Your task to perform on an android device: turn off location history Image 0: 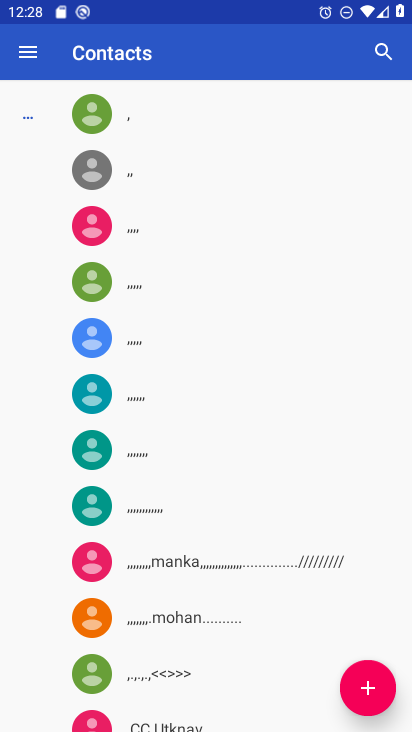
Step 0: press home button
Your task to perform on an android device: turn off location history Image 1: 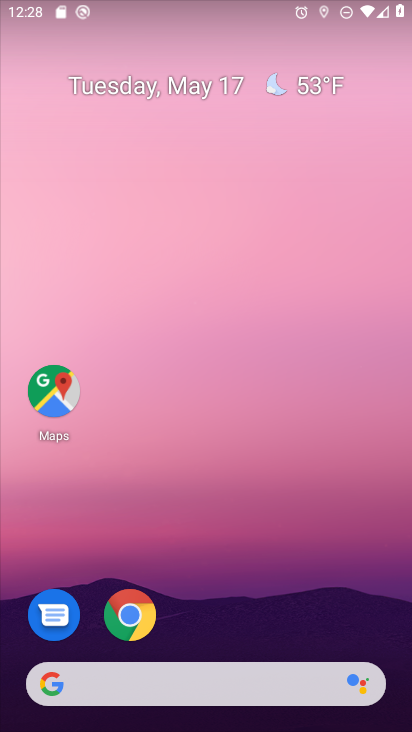
Step 1: drag from (168, 647) to (195, 385)
Your task to perform on an android device: turn off location history Image 2: 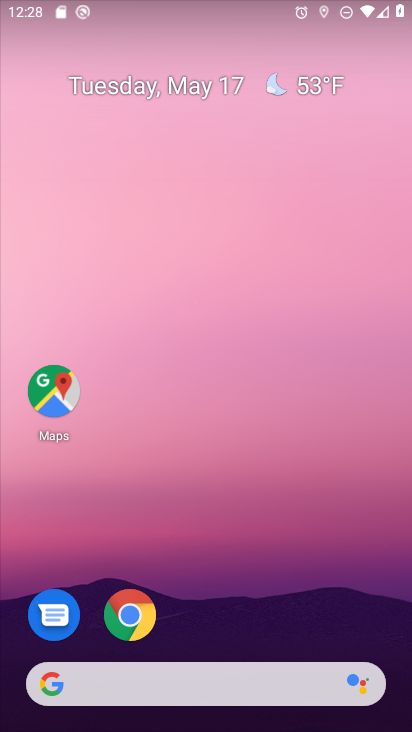
Step 2: drag from (205, 505) to (243, 299)
Your task to perform on an android device: turn off location history Image 3: 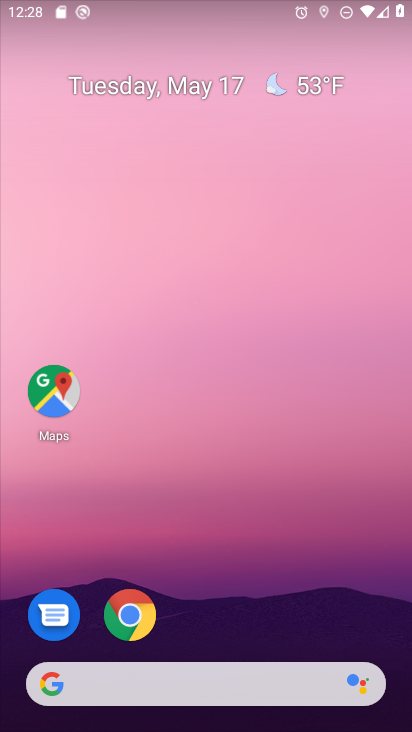
Step 3: drag from (227, 662) to (230, 238)
Your task to perform on an android device: turn off location history Image 4: 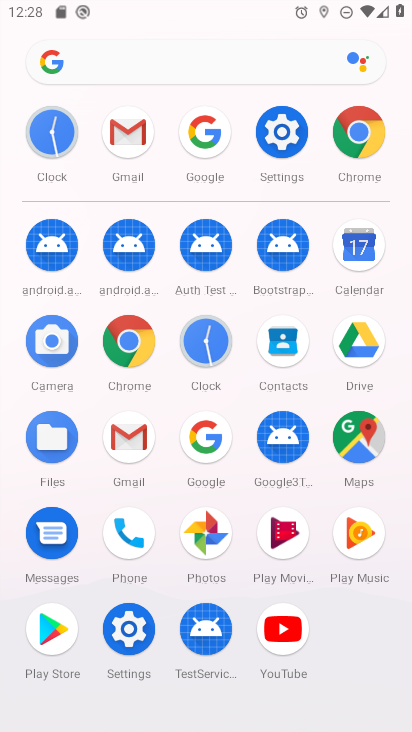
Step 4: click (294, 121)
Your task to perform on an android device: turn off location history Image 5: 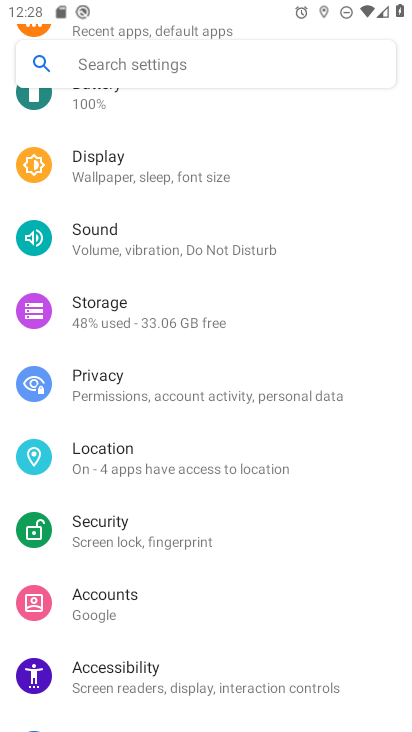
Step 5: click (143, 458)
Your task to perform on an android device: turn off location history Image 6: 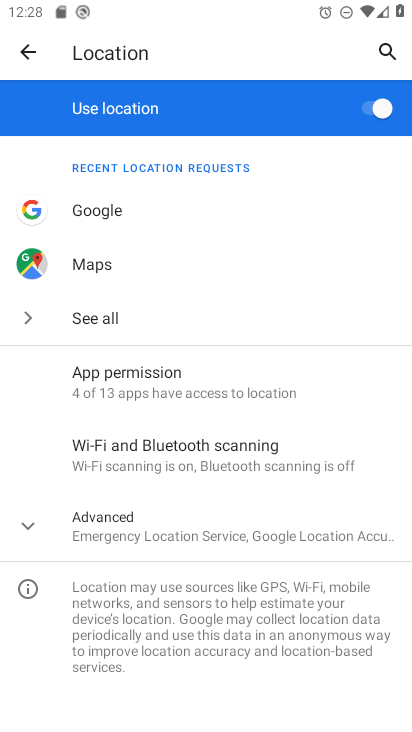
Step 6: click (138, 535)
Your task to perform on an android device: turn off location history Image 7: 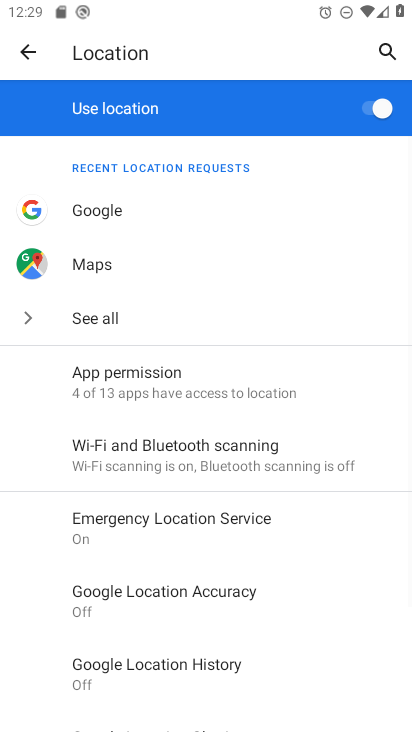
Step 7: click (192, 660)
Your task to perform on an android device: turn off location history Image 8: 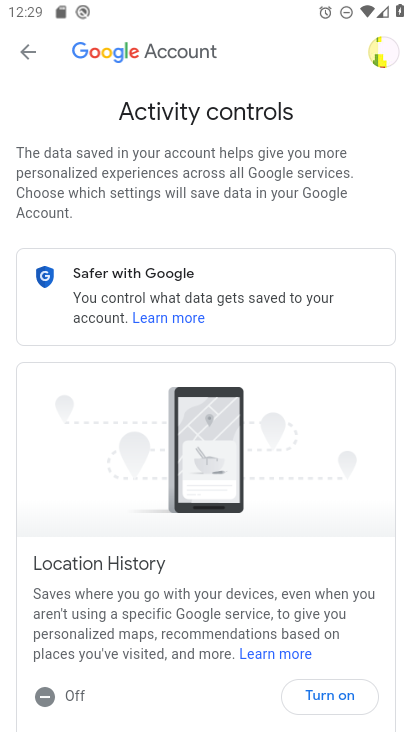
Step 8: task complete